Your task to perform on an android device: Search for pizza restaurants on Maps Image 0: 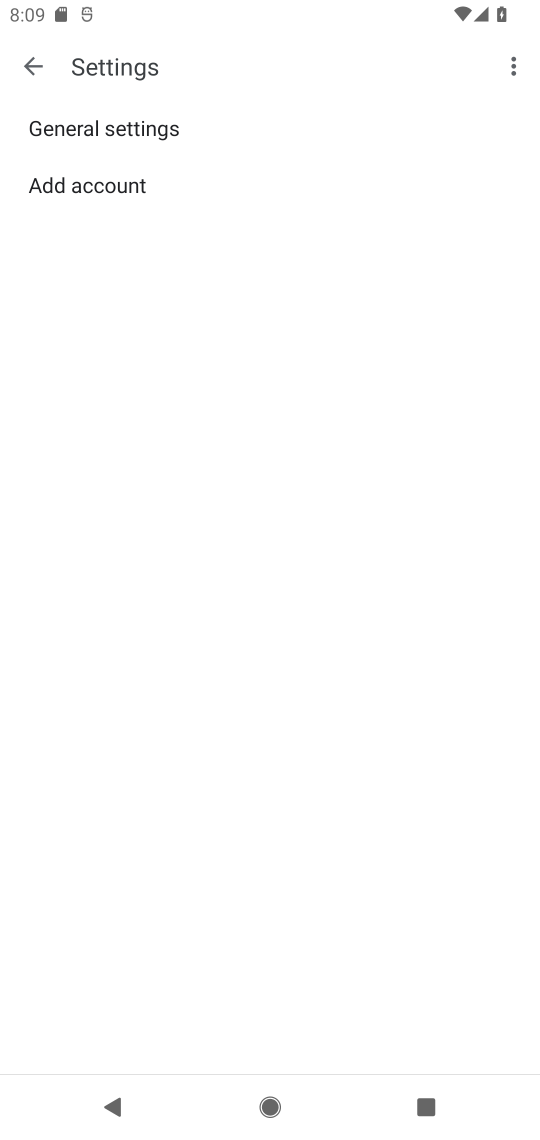
Step 0: press home button
Your task to perform on an android device: Search for pizza restaurants on Maps Image 1: 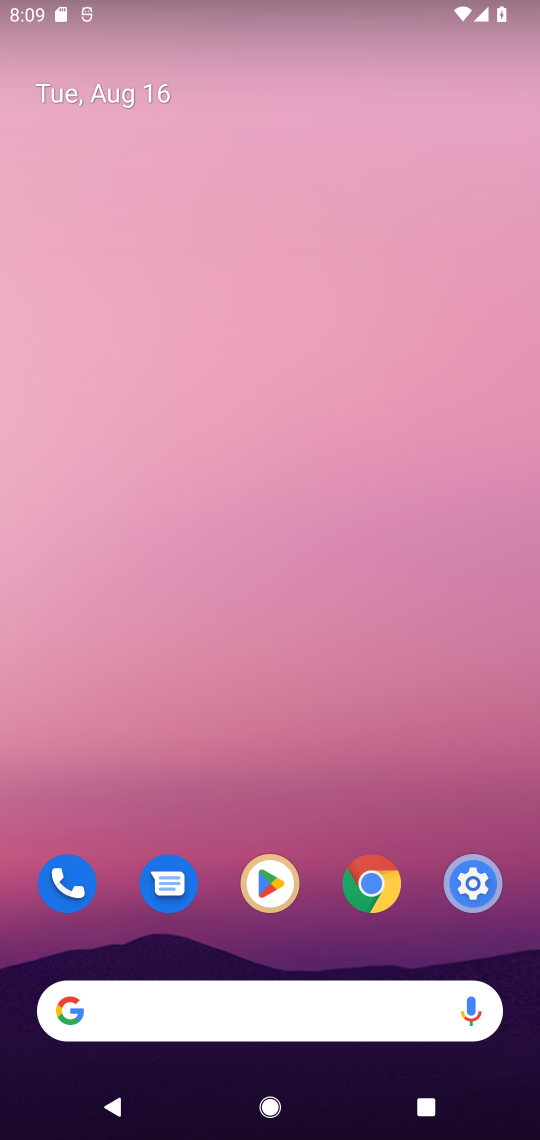
Step 1: drag from (233, 1011) to (275, 43)
Your task to perform on an android device: Search for pizza restaurants on Maps Image 2: 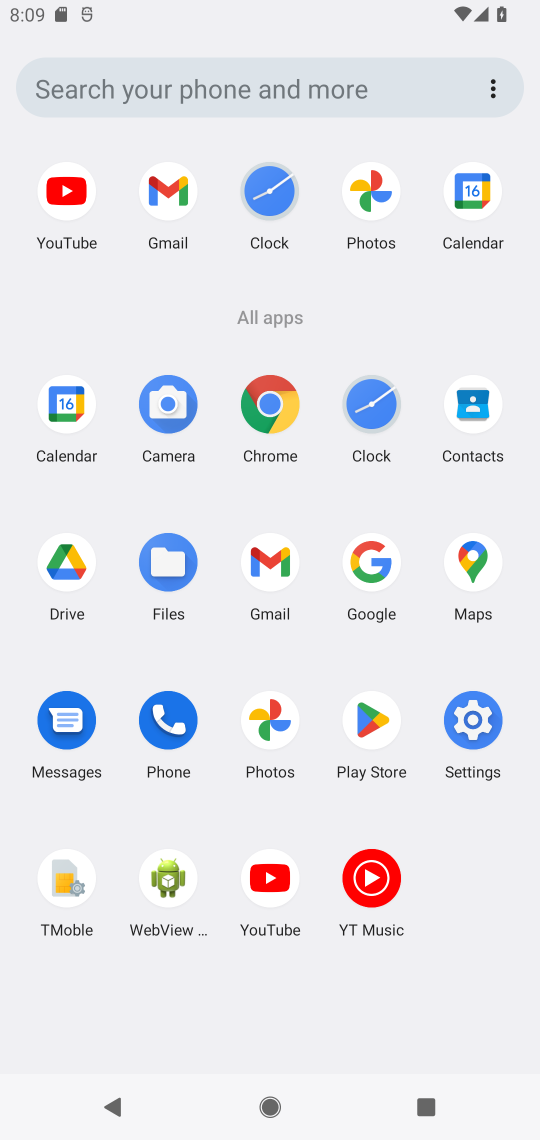
Step 2: click (478, 572)
Your task to perform on an android device: Search for pizza restaurants on Maps Image 3: 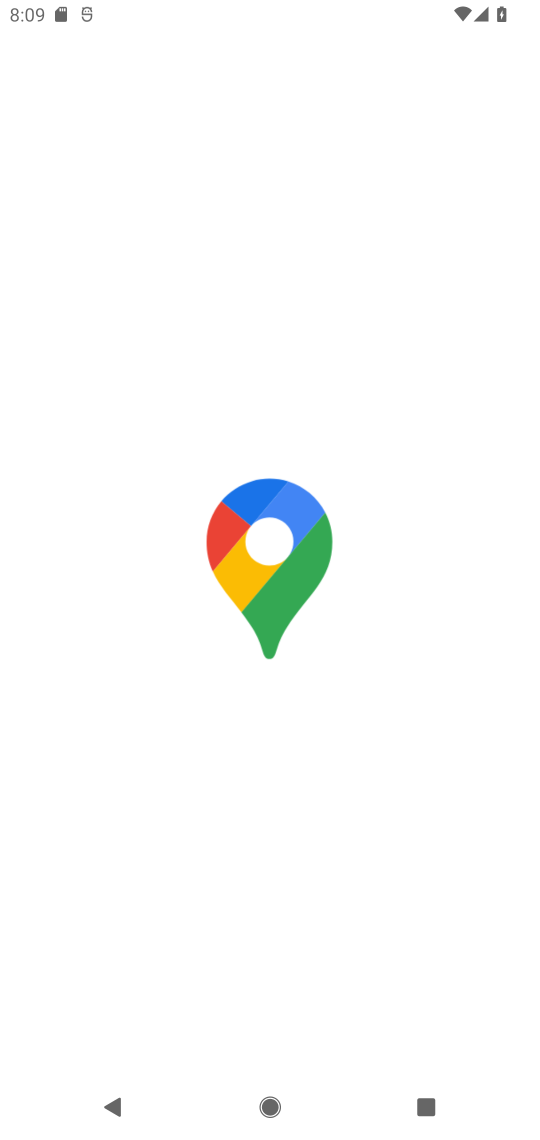
Step 3: click (474, 611)
Your task to perform on an android device: Search for pizza restaurants on Maps Image 4: 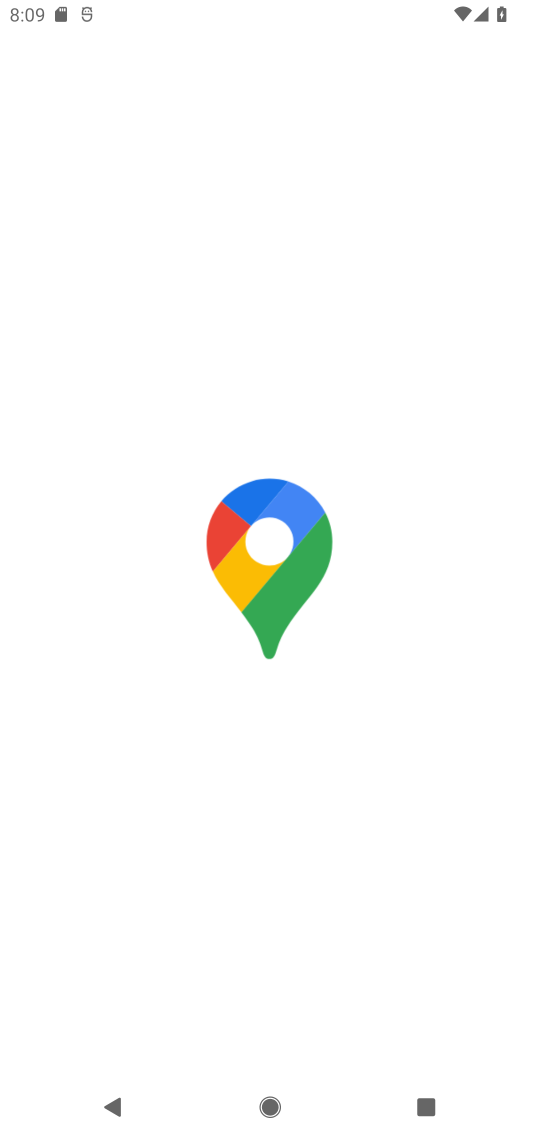
Step 4: task complete